Your task to perform on an android device: Turn on the flashlight Image 0: 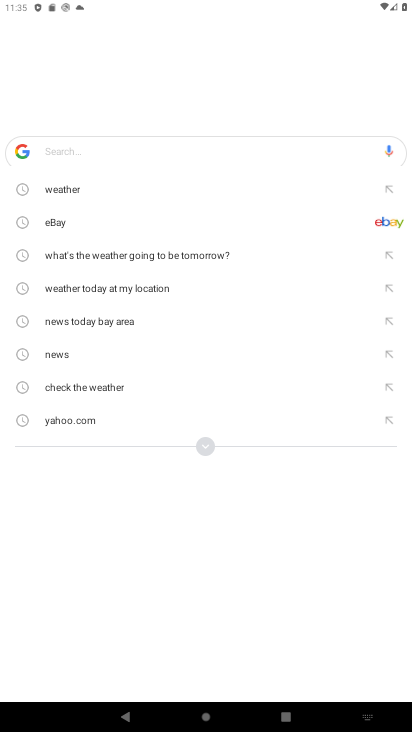
Step 0: press home button
Your task to perform on an android device: Turn on the flashlight Image 1: 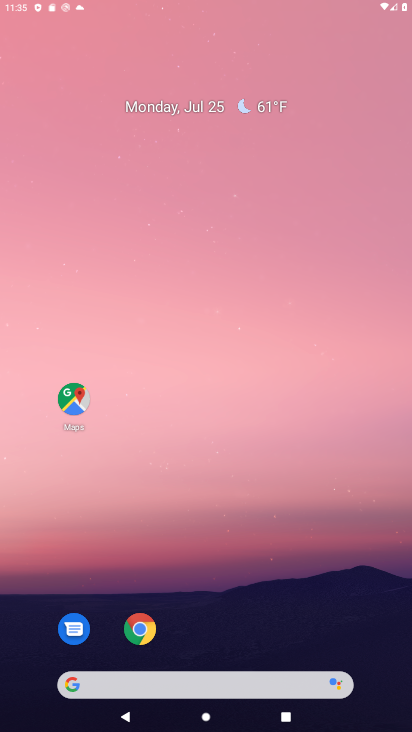
Step 1: drag from (247, 598) to (247, 122)
Your task to perform on an android device: Turn on the flashlight Image 2: 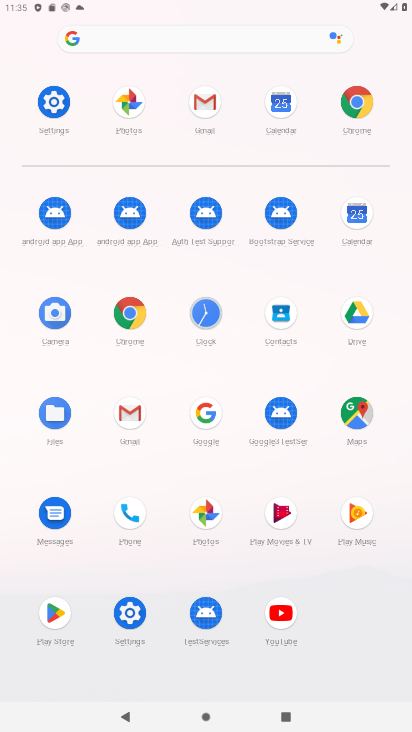
Step 2: click (129, 614)
Your task to perform on an android device: Turn on the flashlight Image 3: 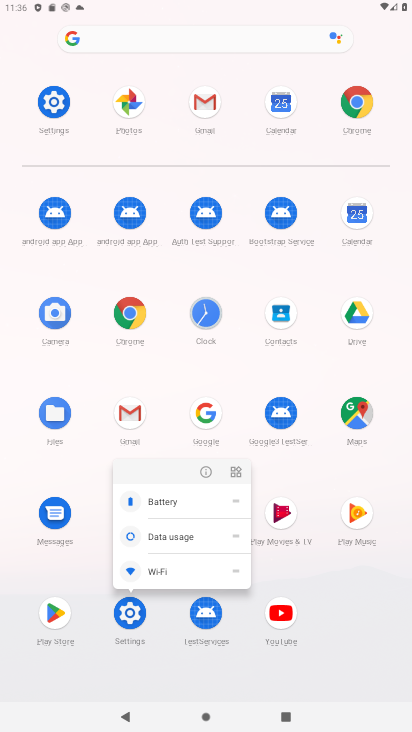
Step 3: click (201, 466)
Your task to perform on an android device: Turn on the flashlight Image 4: 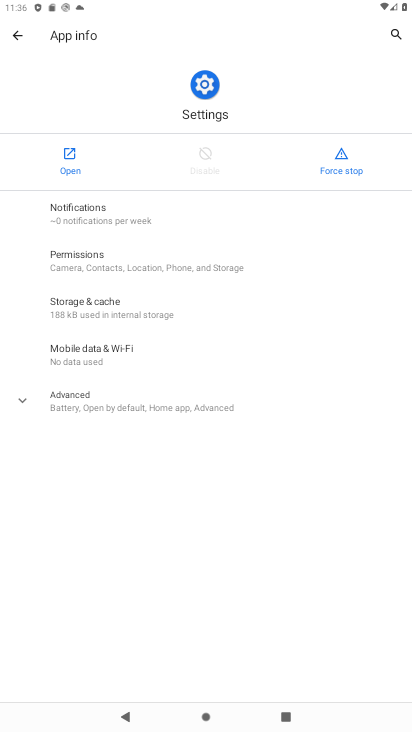
Step 4: click (47, 155)
Your task to perform on an android device: Turn on the flashlight Image 5: 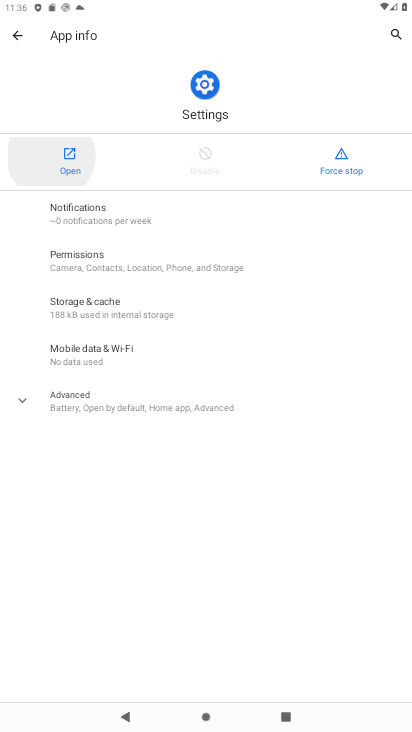
Step 5: click (71, 159)
Your task to perform on an android device: Turn on the flashlight Image 6: 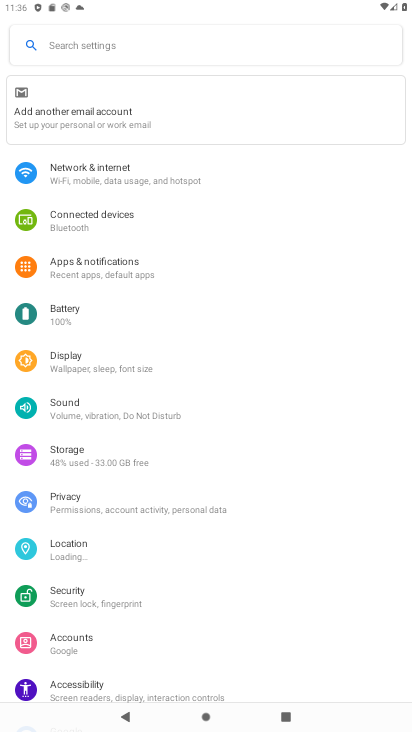
Step 6: click (168, 44)
Your task to perform on an android device: Turn on the flashlight Image 7: 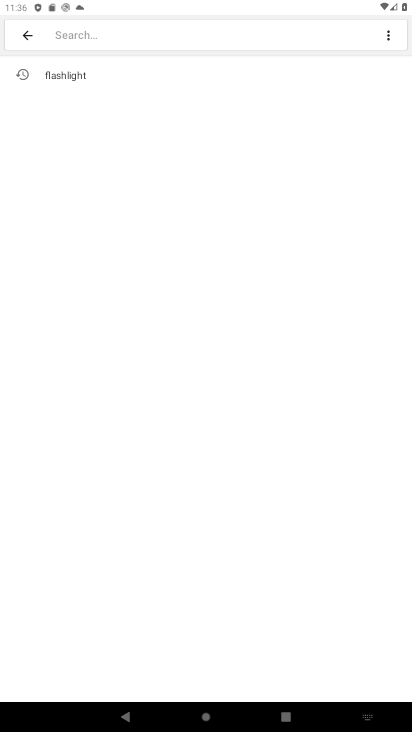
Step 7: click (147, 73)
Your task to perform on an android device: Turn on the flashlight Image 8: 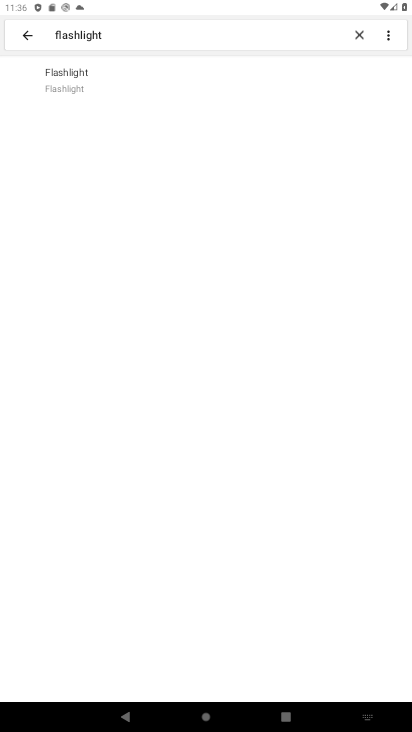
Step 8: task complete